Your task to perform on an android device: Search for the best selling books on Target. Image 0: 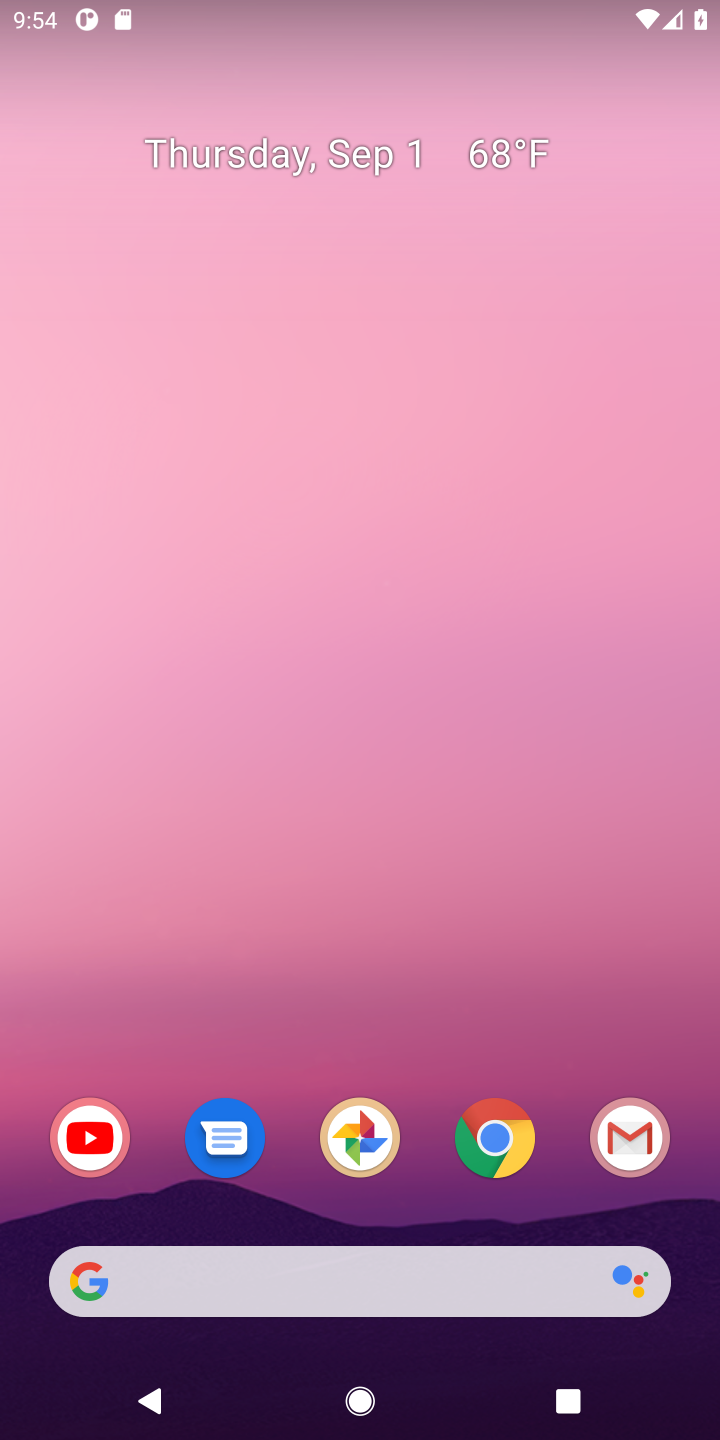
Step 0: click (215, 1273)
Your task to perform on an android device: Search for the best selling books on Target. Image 1: 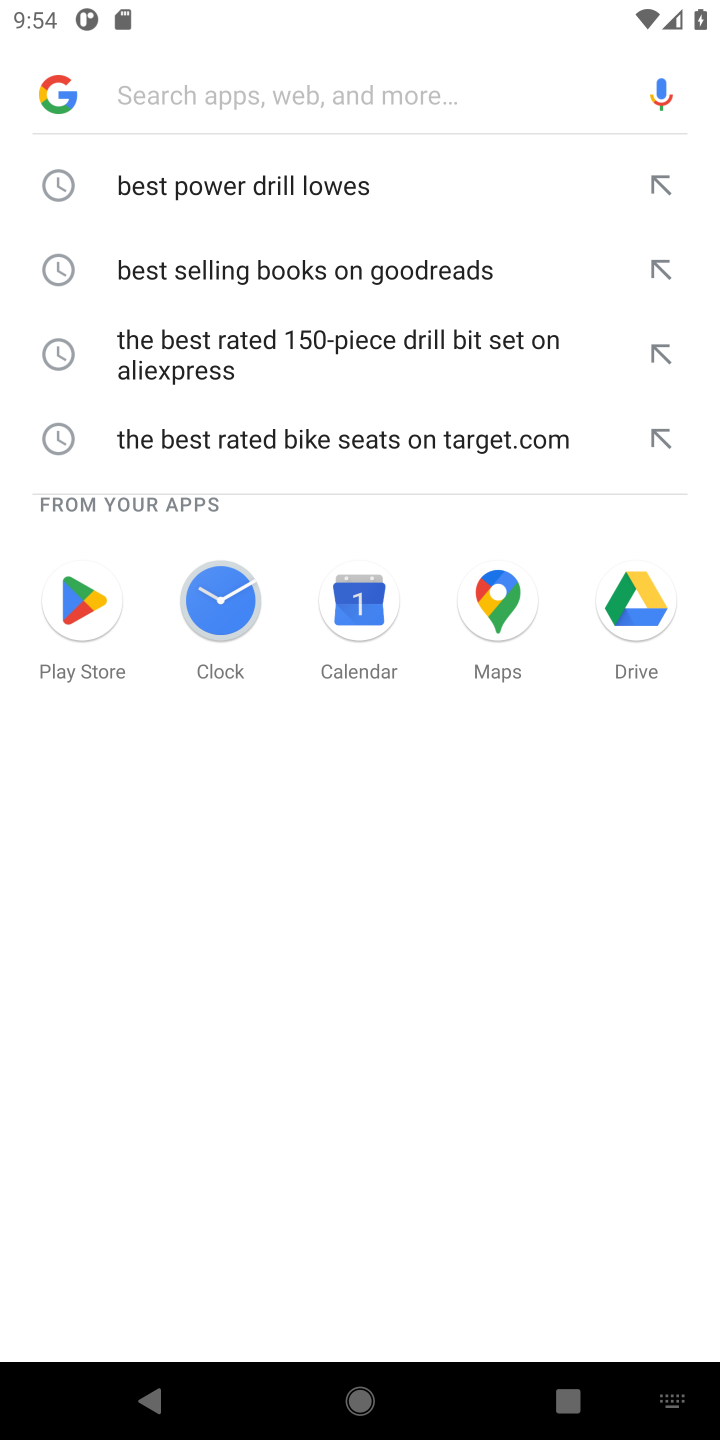
Step 1: type "the best selling books on Target"
Your task to perform on an android device: Search for the best selling books on Target. Image 2: 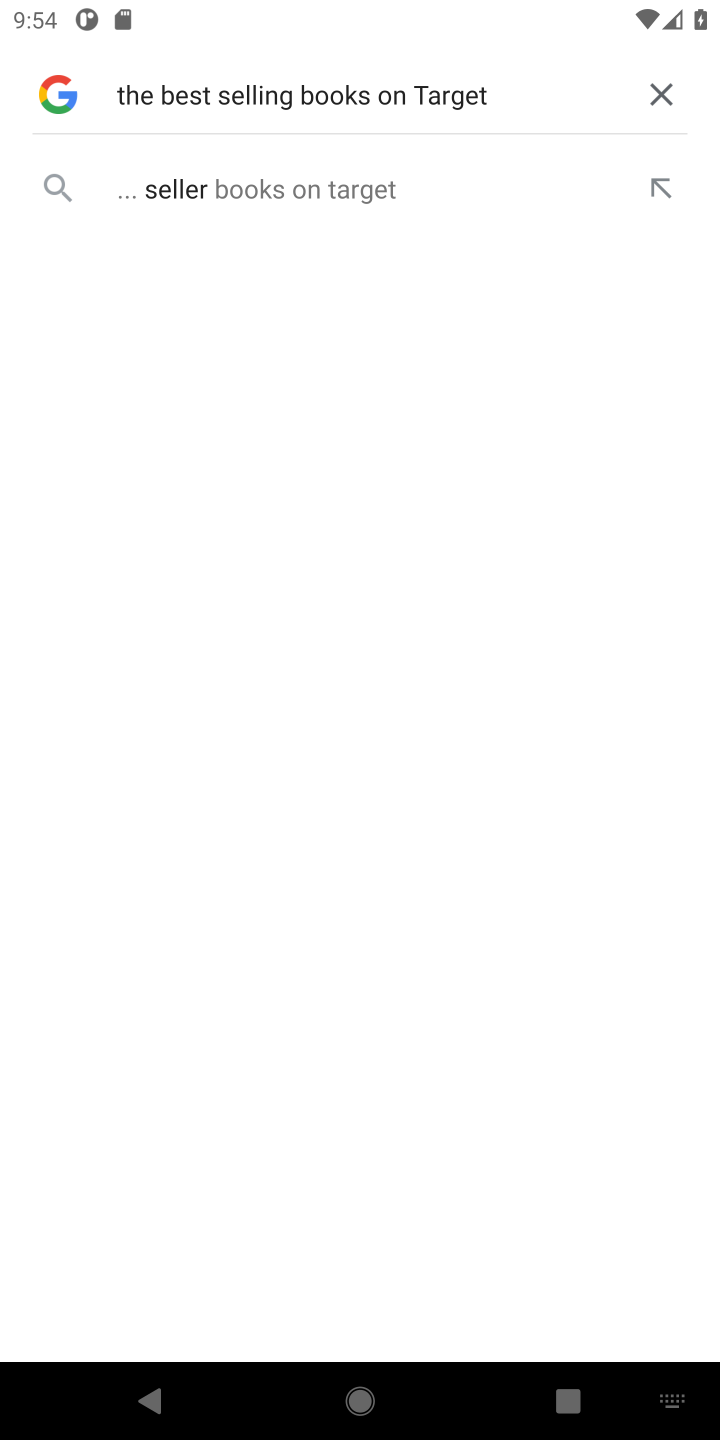
Step 2: type ""
Your task to perform on an android device: Search for the best selling books on Target. Image 3: 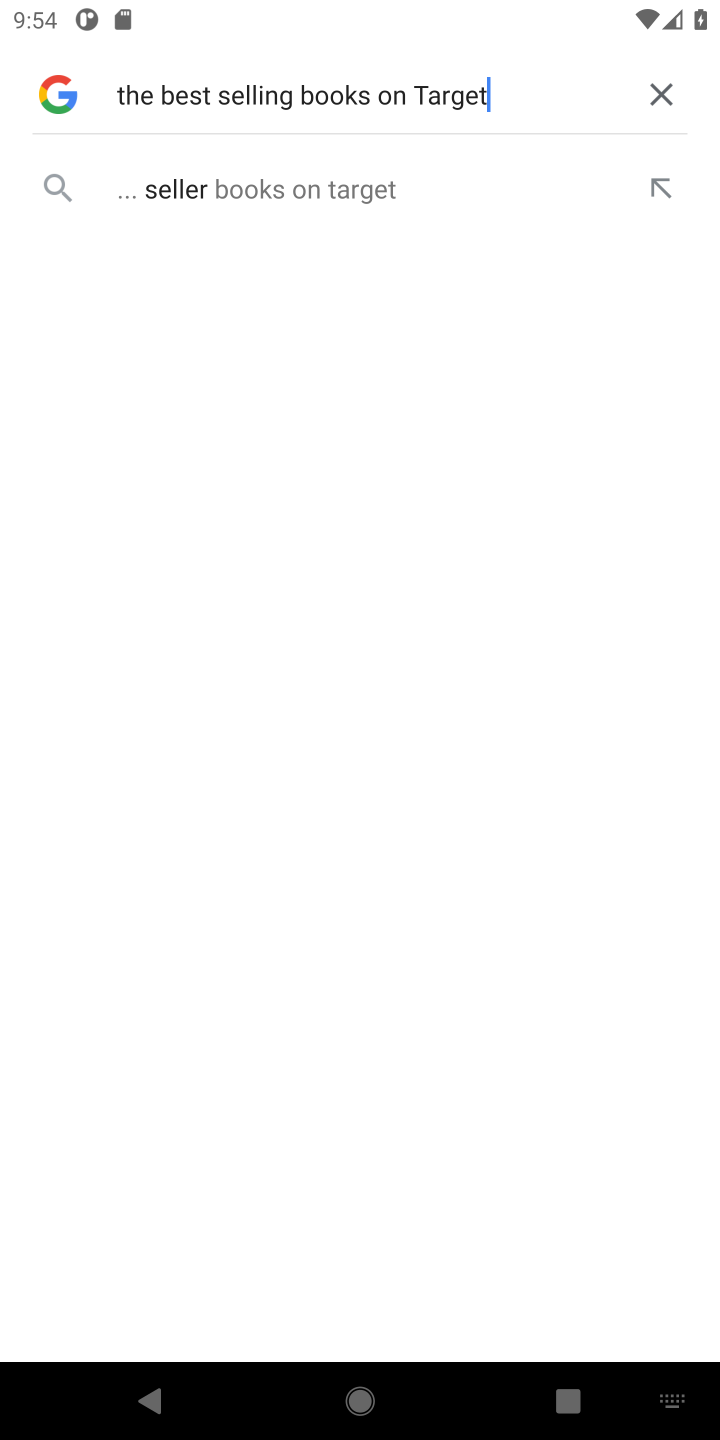
Step 3: click (363, 201)
Your task to perform on an android device: Search for the best selling books on Target. Image 4: 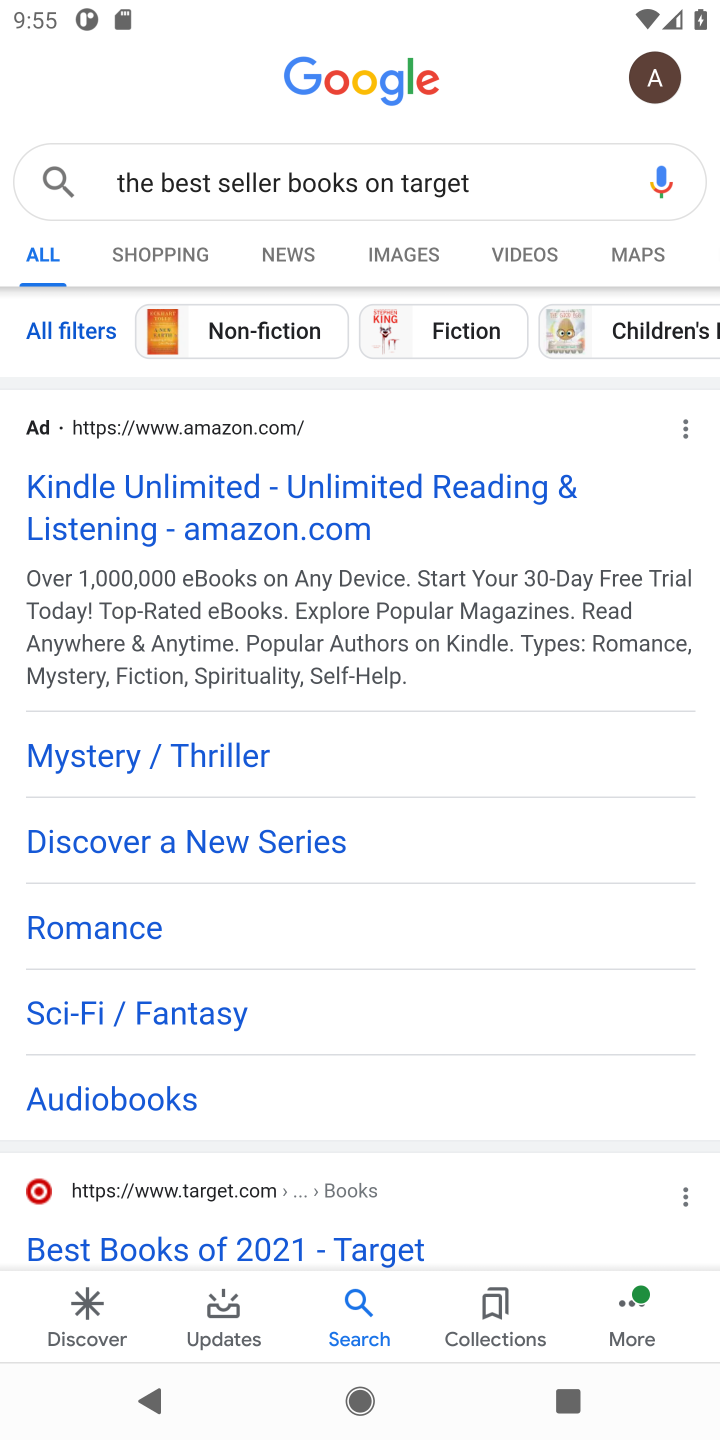
Step 4: task complete